Your task to perform on an android device: Go to sound settings Image 0: 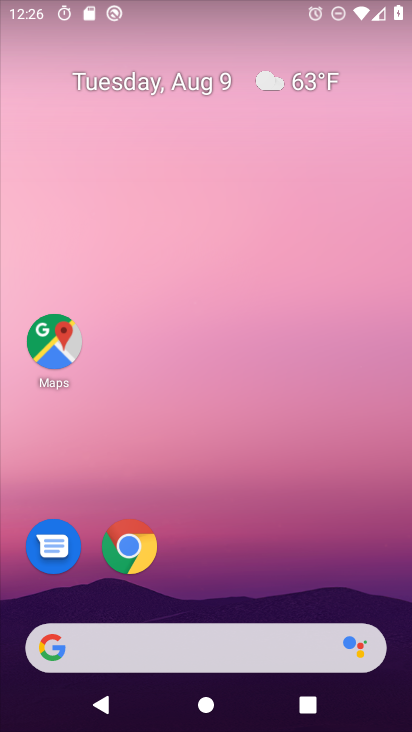
Step 0: press home button
Your task to perform on an android device: Go to sound settings Image 1: 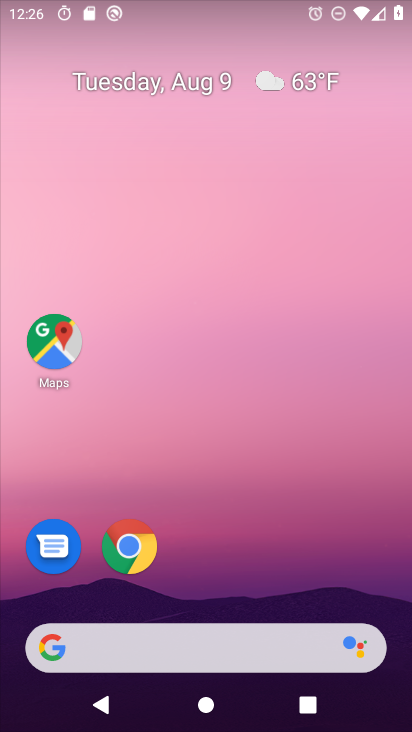
Step 1: drag from (236, 600) to (222, 11)
Your task to perform on an android device: Go to sound settings Image 2: 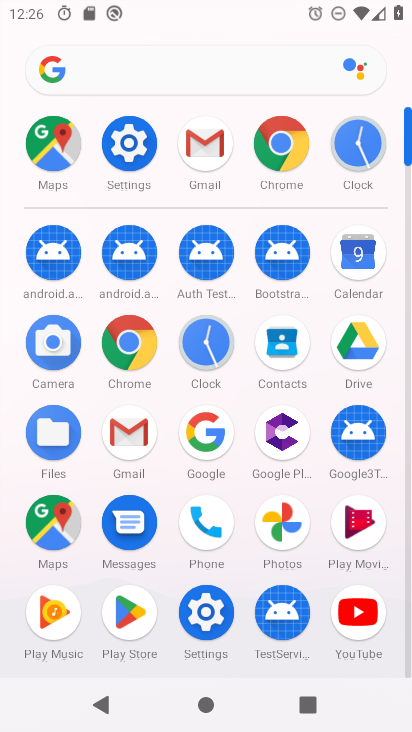
Step 2: click (135, 137)
Your task to perform on an android device: Go to sound settings Image 3: 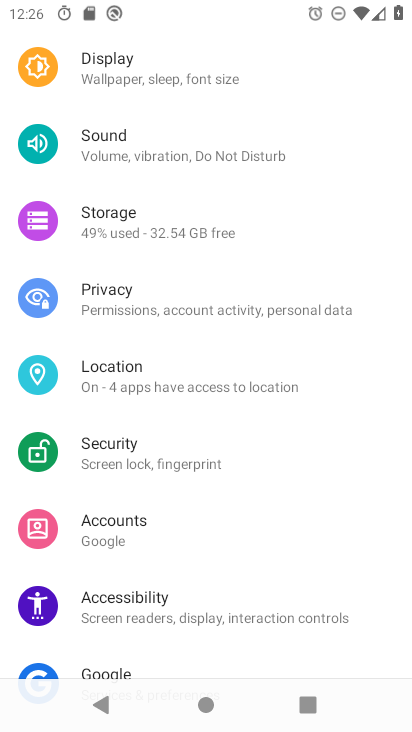
Step 3: click (147, 138)
Your task to perform on an android device: Go to sound settings Image 4: 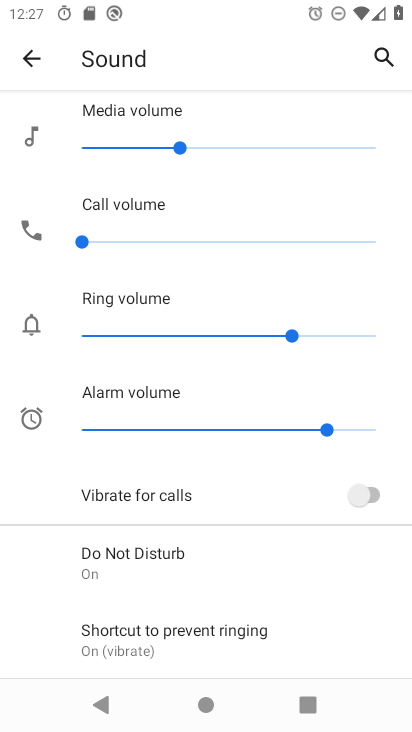
Step 4: drag from (221, 597) to (202, 101)
Your task to perform on an android device: Go to sound settings Image 5: 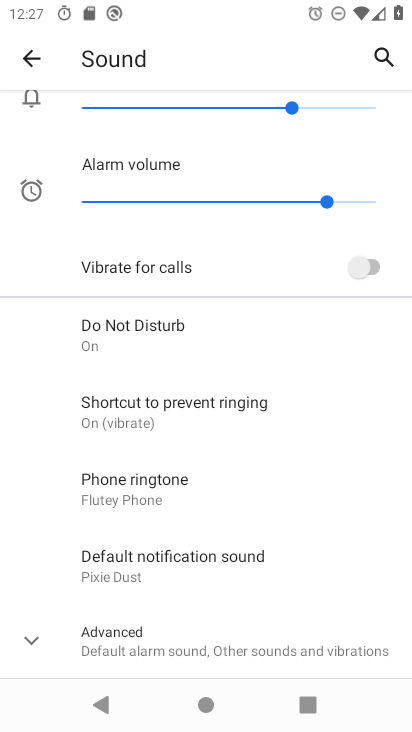
Step 5: click (27, 637)
Your task to perform on an android device: Go to sound settings Image 6: 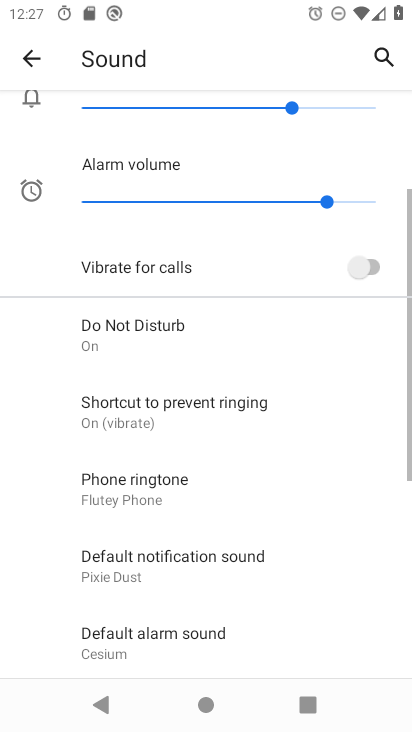
Step 6: task complete